Your task to perform on an android device: remove spam from my inbox in the gmail app Image 0: 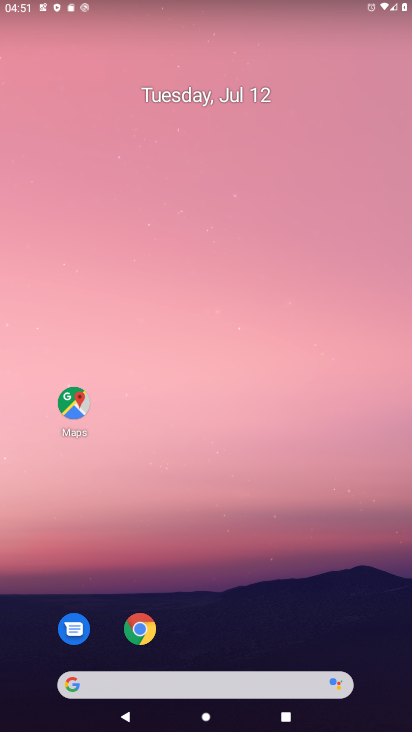
Step 0: press home button
Your task to perform on an android device: remove spam from my inbox in the gmail app Image 1: 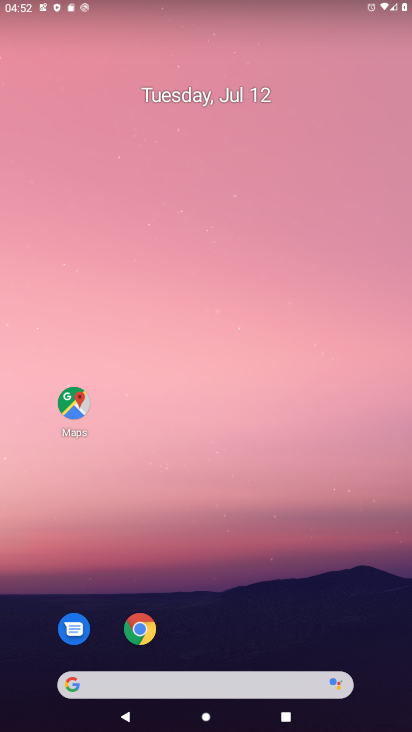
Step 1: drag from (231, 648) to (198, 109)
Your task to perform on an android device: remove spam from my inbox in the gmail app Image 2: 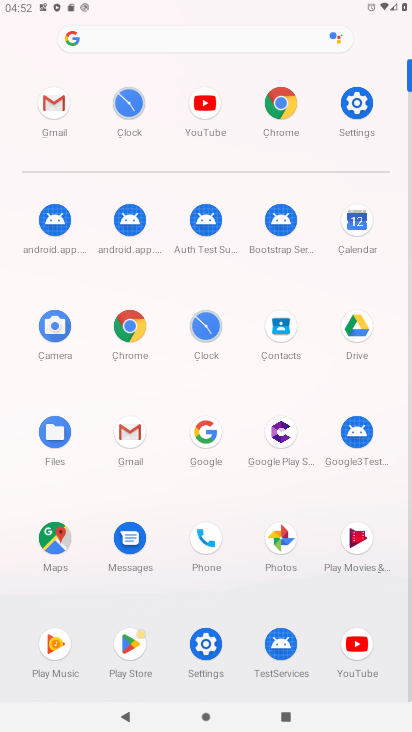
Step 2: click (54, 105)
Your task to perform on an android device: remove spam from my inbox in the gmail app Image 3: 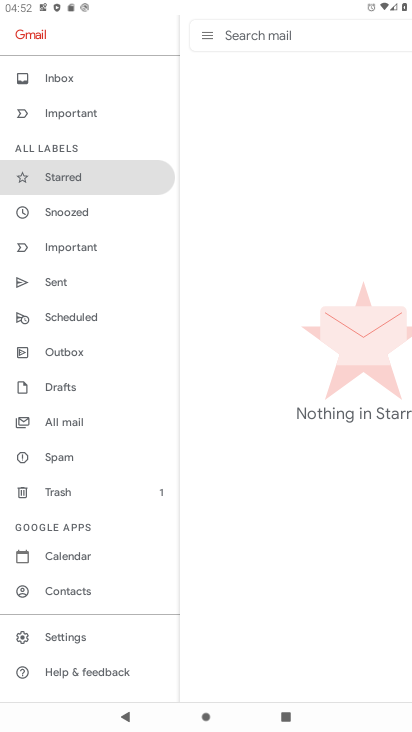
Step 3: click (51, 459)
Your task to perform on an android device: remove spam from my inbox in the gmail app Image 4: 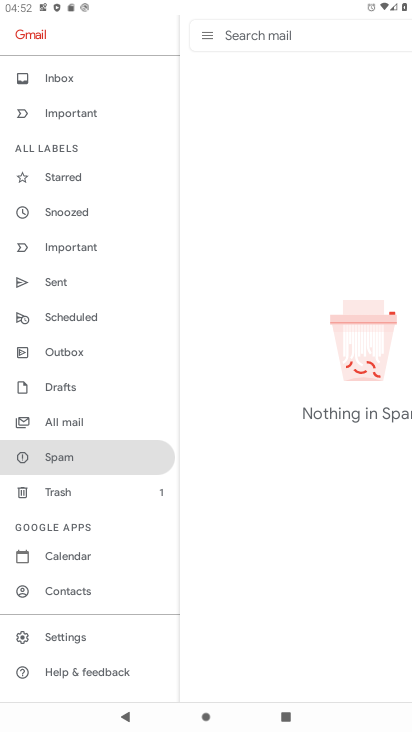
Step 4: task complete